Your task to perform on an android device: choose inbox layout in the gmail app Image 0: 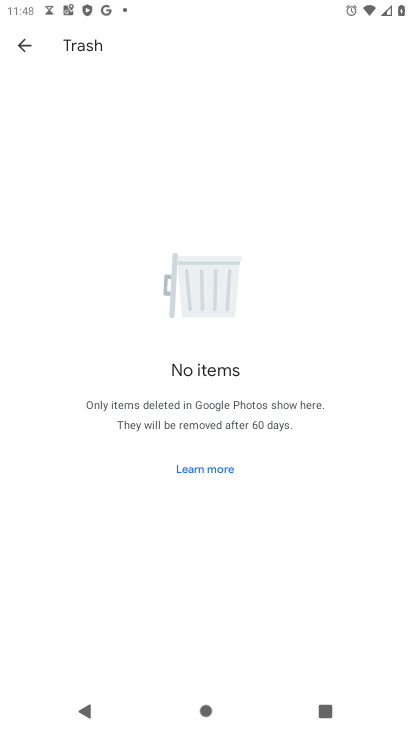
Step 0: press home button
Your task to perform on an android device: choose inbox layout in the gmail app Image 1: 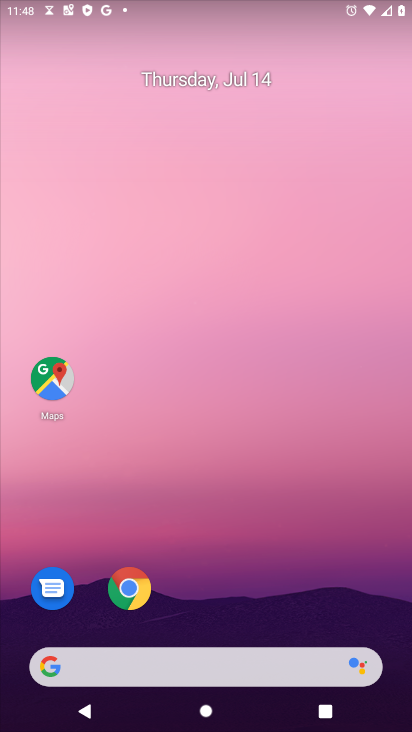
Step 1: drag from (197, 610) to (229, 101)
Your task to perform on an android device: choose inbox layout in the gmail app Image 2: 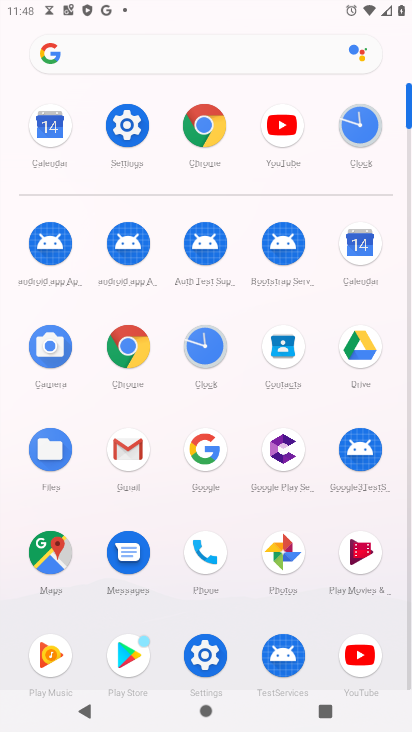
Step 2: click (121, 456)
Your task to perform on an android device: choose inbox layout in the gmail app Image 3: 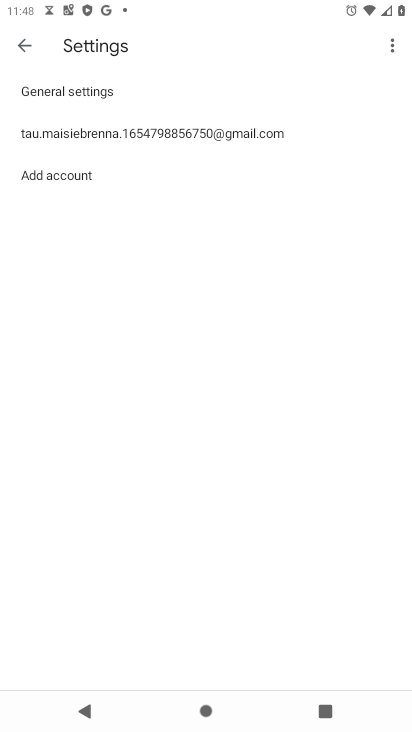
Step 3: click (205, 138)
Your task to perform on an android device: choose inbox layout in the gmail app Image 4: 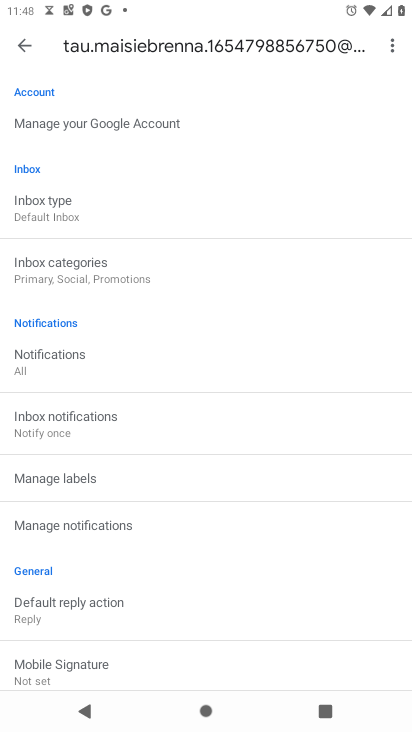
Step 4: click (44, 205)
Your task to perform on an android device: choose inbox layout in the gmail app Image 5: 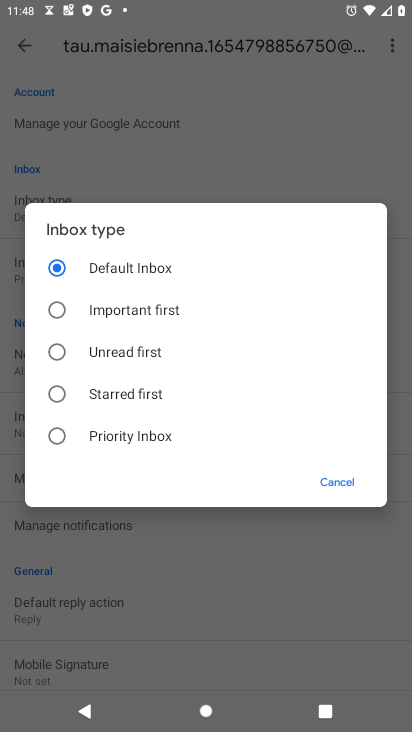
Step 5: click (58, 431)
Your task to perform on an android device: choose inbox layout in the gmail app Image 6: 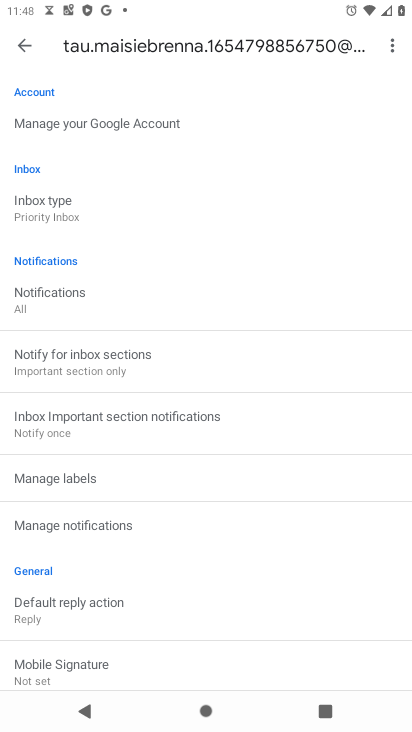
Step 6: task complete